Your task to perform on an android device: turn pop-ups off in chrome Image 0: 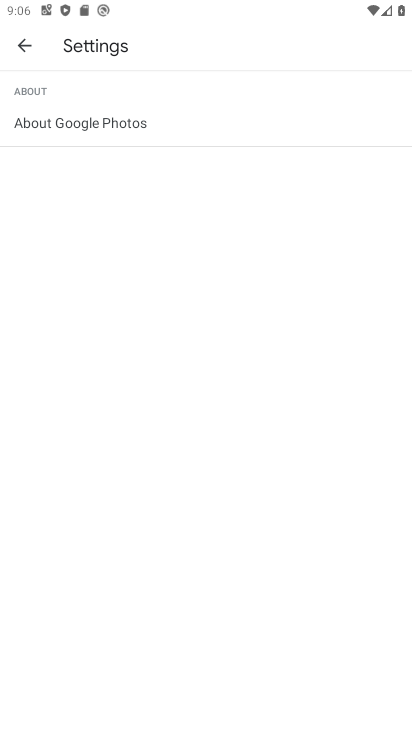
Step 0: press home button
Your task to perform on an android device: turn pop-ups off in chrome Image 1: 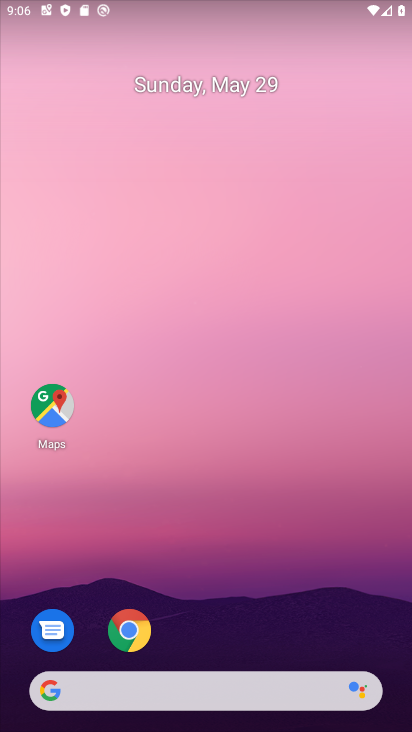
Step 1: click (235, 639)
Your task to perform on an android device: turn pop-ups off in chrome Image 2: 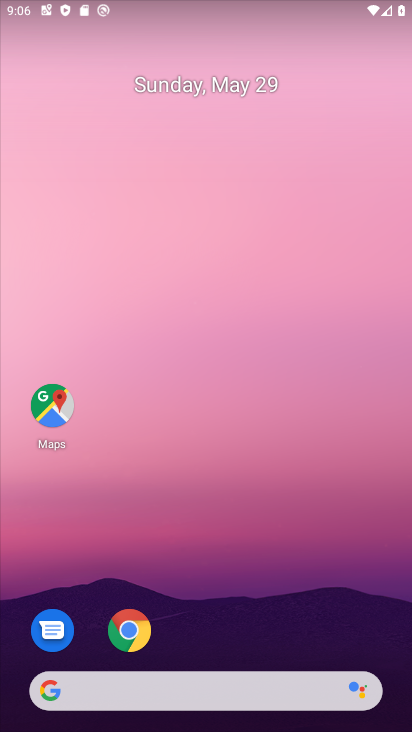
Step 2: click (142, 640)
Your task to perform on an android device: turn pop-ups off in chrome Image 3: 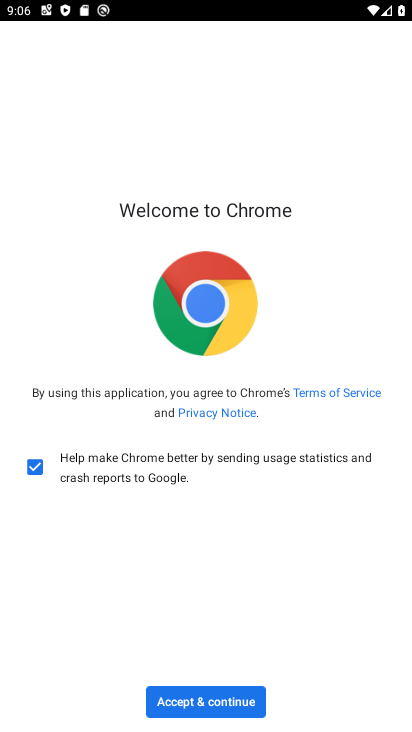
Step 3: click (215, 698)
Your task to perform on an android device: turn pop-ups off in chrome Image 4: 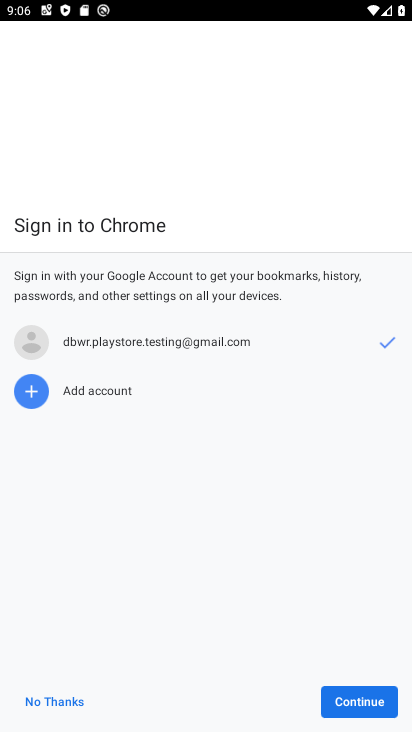
Step 4: click (369, 695)
Your task to perform on an android device: turn pop-ups off in chrome Image 5: 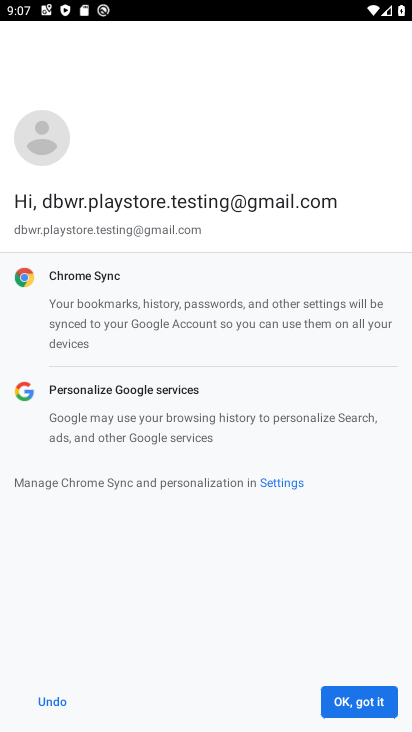
Step 5: click (369, 695)
Your task to perform on an android device: turn pop-ups off in chrome Image 6: 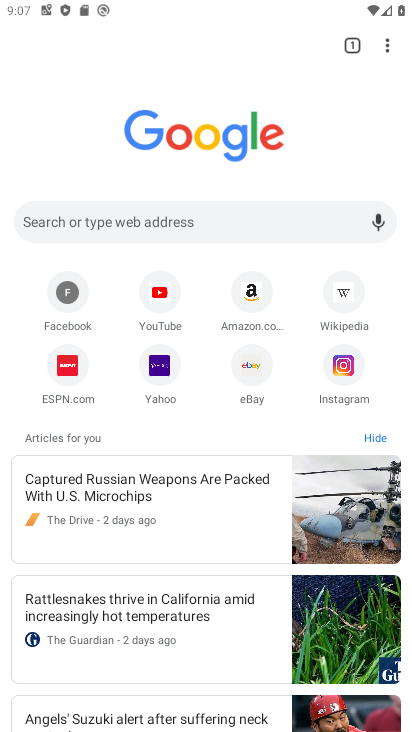
Step 6: click (393, 42)
Your task to perform on an android device: turn pop-ups off in chrome Image 7: 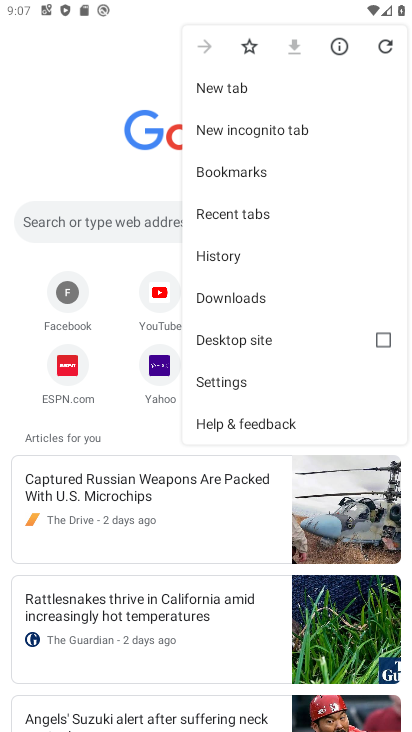
Step 7: click (244, 382)
Your task to perform on an android device: turn pop-ups off in chrome Image 8: 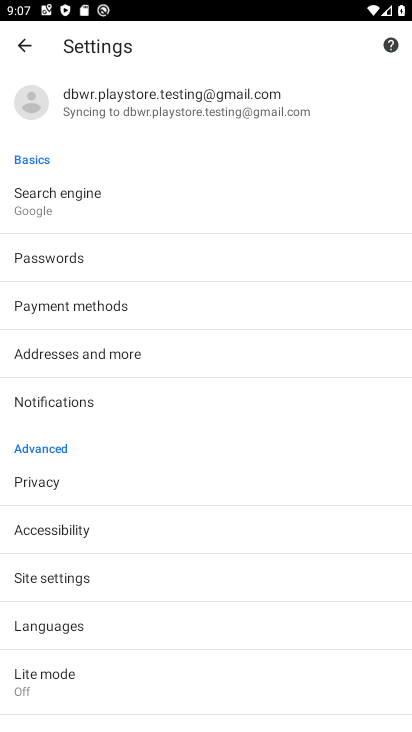
Step 8: click (161, 587)
Your task to perform on an android device: turn pop-ups off in chrome Image 9: 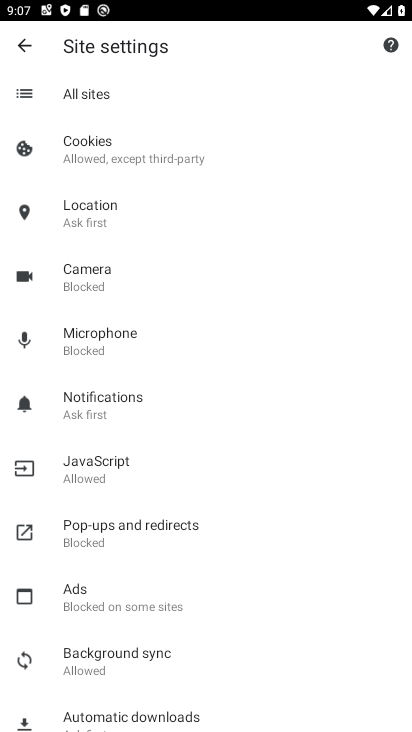
Step 9: drag from (239, 638) to (217, 481)
Your task to perform on an android device: turn pop-ups off in chrome Image 10: 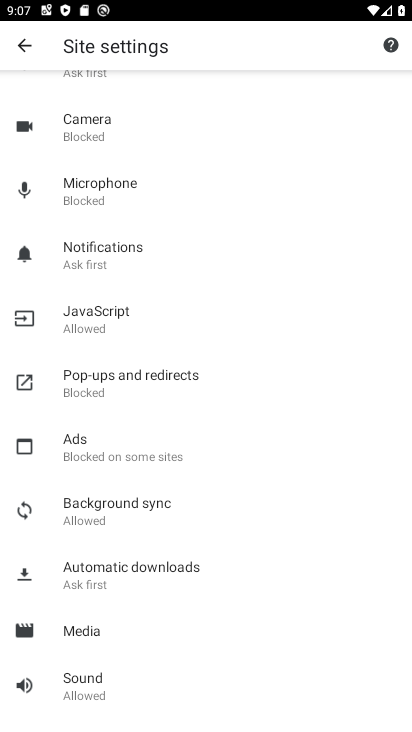
Step 10: click (133, 371)
Your task to perform on an android device: turn pop-ups off in chrome Image 11: 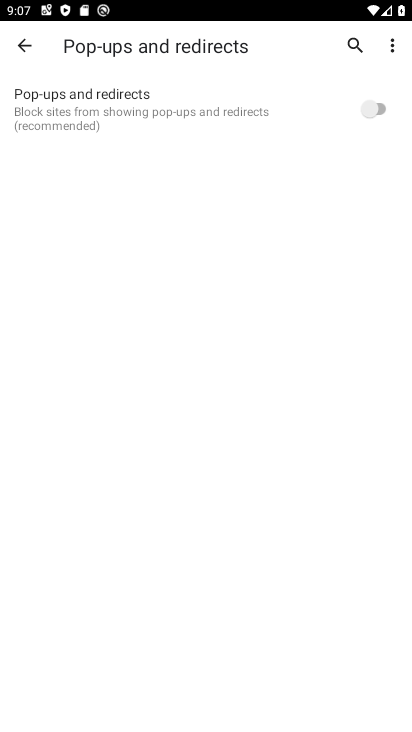
Step 11: task complete